Your task to perform on an android device: Search for "usb-a" on newegg, select the first entry, add it to the cart, then select checkout. Image 0: 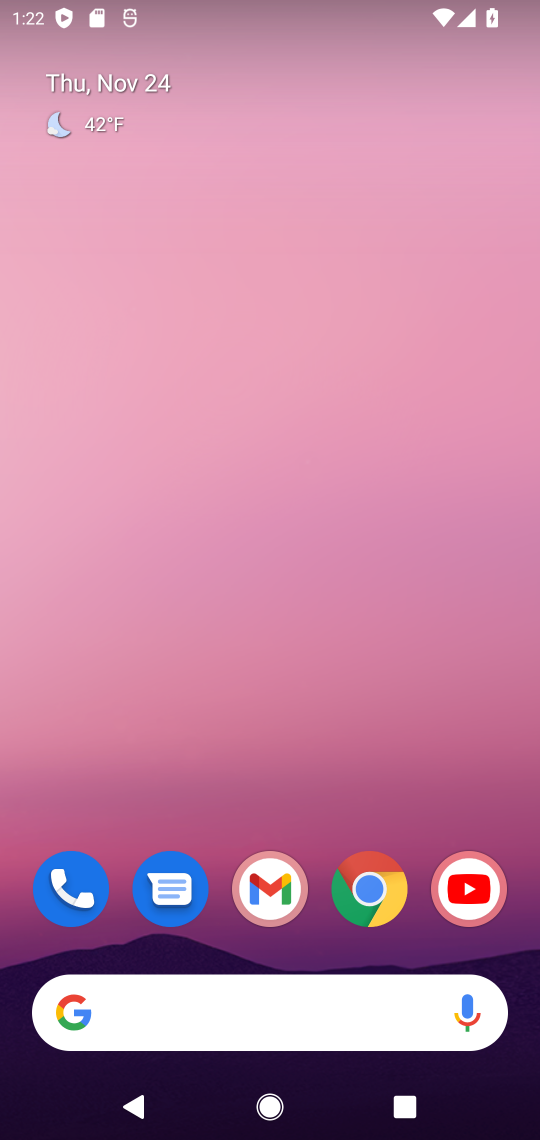
Step 0: click (369, 882)
Your task to perform on an android device: Search for "usb-a" on newegg, select the first entry, add it to the cart, then select checkout. Image 1: 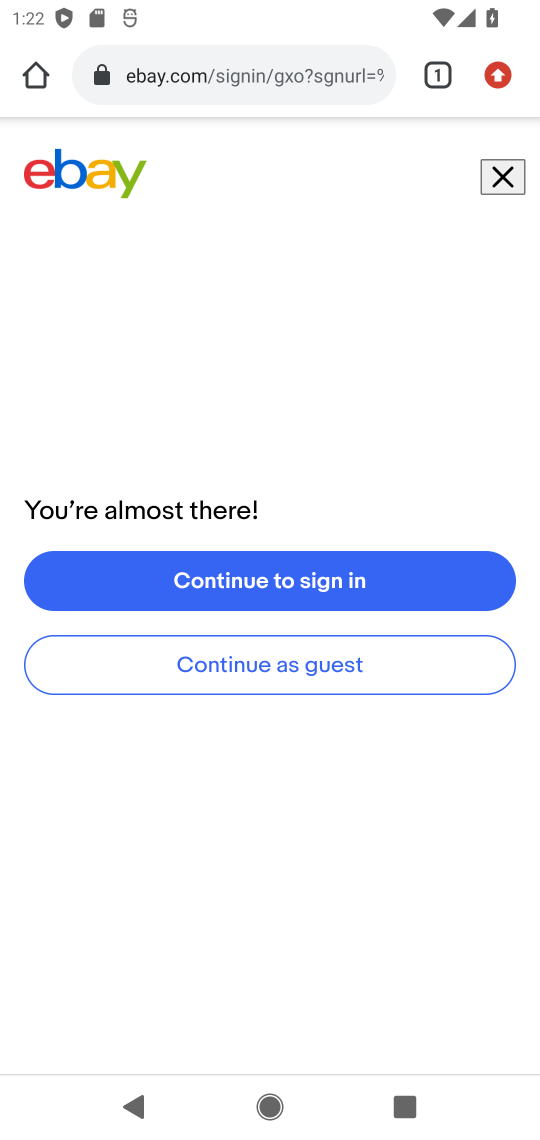
Step 1: click (209, 69)
Your task to perform on an android device: Search for "usb-a" on newegg, select the first entry, add it to the cart, then select checkout. Image 2: 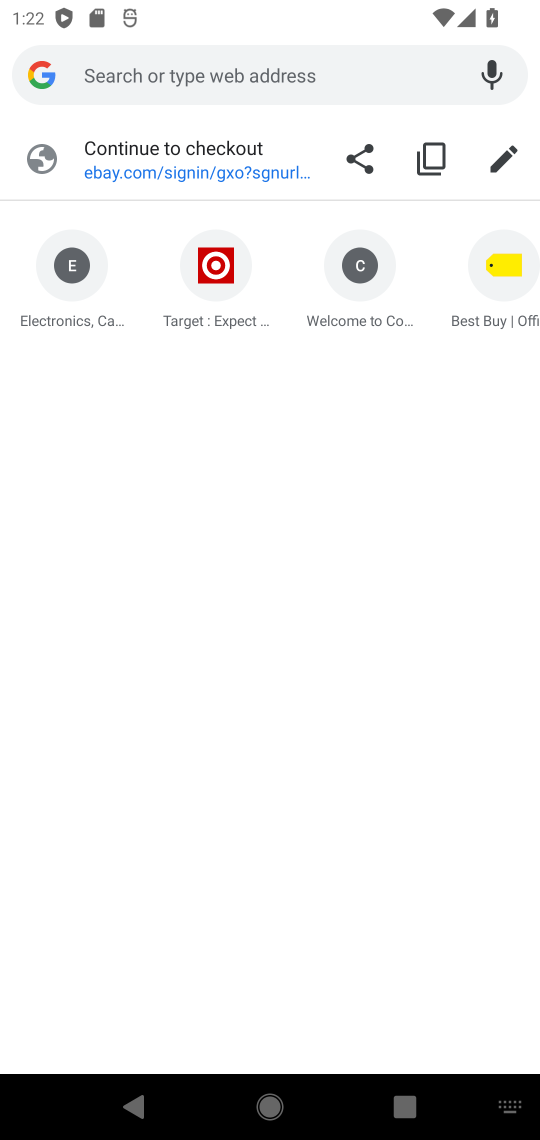
Step 2: type "newegg.com"
Your task to perform on an android device: Search for "usb-a" on newegg, select the first entry, add it to the cart, then select checkout. Image 3: 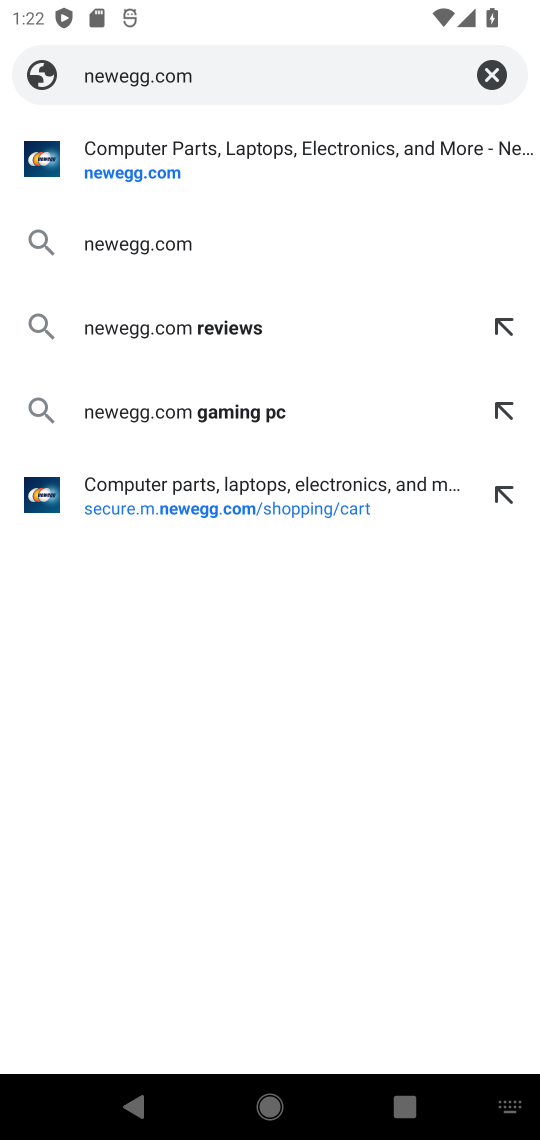
Step 3: click (116, 176)
Your task to perform on an android device: Search for "usb-a" on newegg, select the first entry, add it to the cart, then select checkout. Image 4: 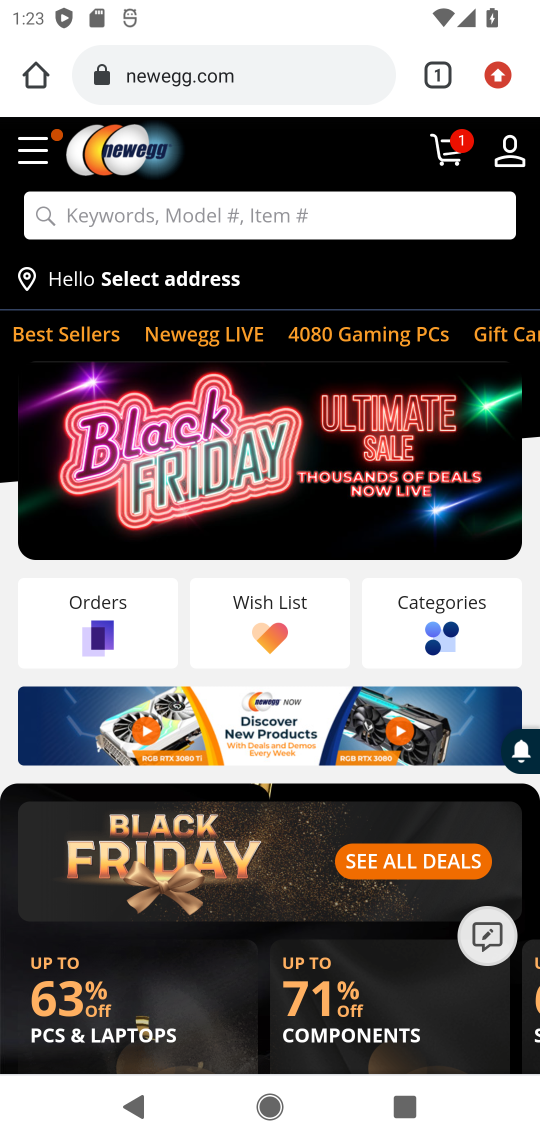
Step 4: click (105, 219)
Your task to perform on an android device: Search for "usb-a" on newegg, select the first entry, add it to the cart, then select checkout. Image 5: 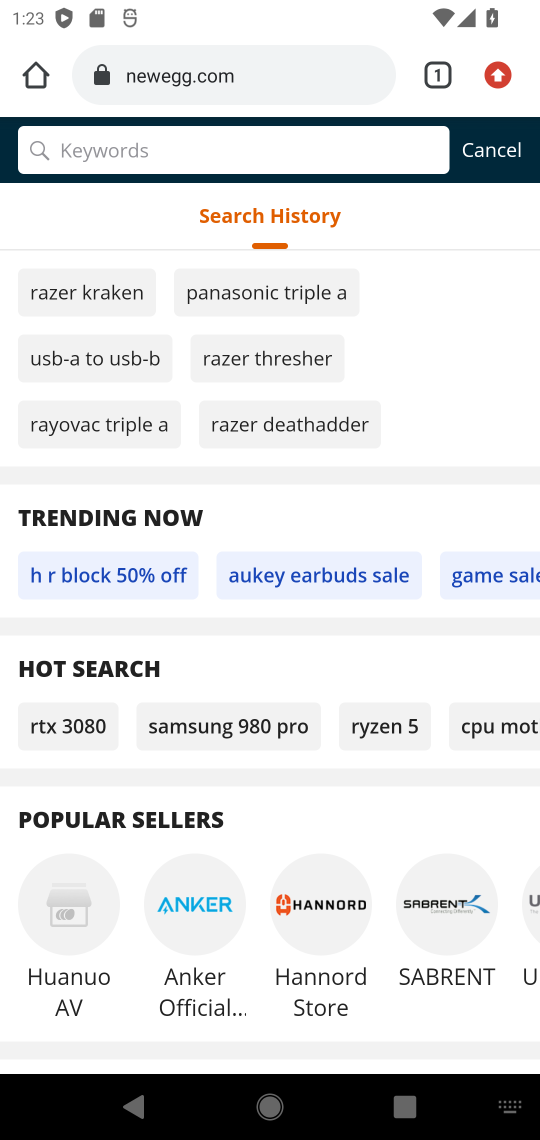
Step 5: type "usb-a"
Your task to perform on an android device: Search for "usb-a" on newegg, select the first entry, add it to the cart, then select checkout. Image 6: 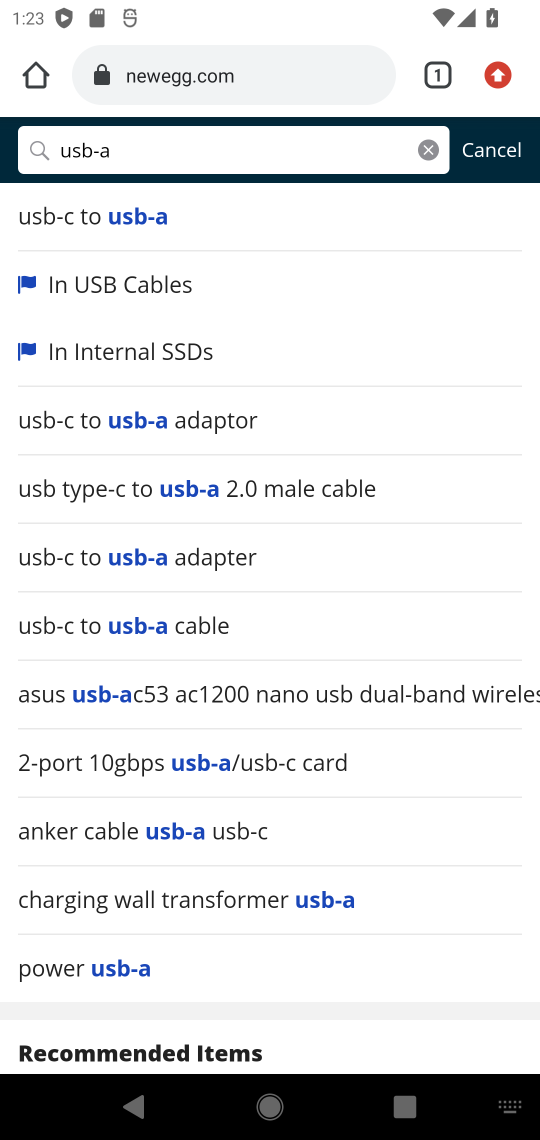
Step 6: click (130, 972)
Your task to perform on an android device: Search for "usb-a" on newegg, select the first entry, add it to the cart, then select checkout. Image 7: 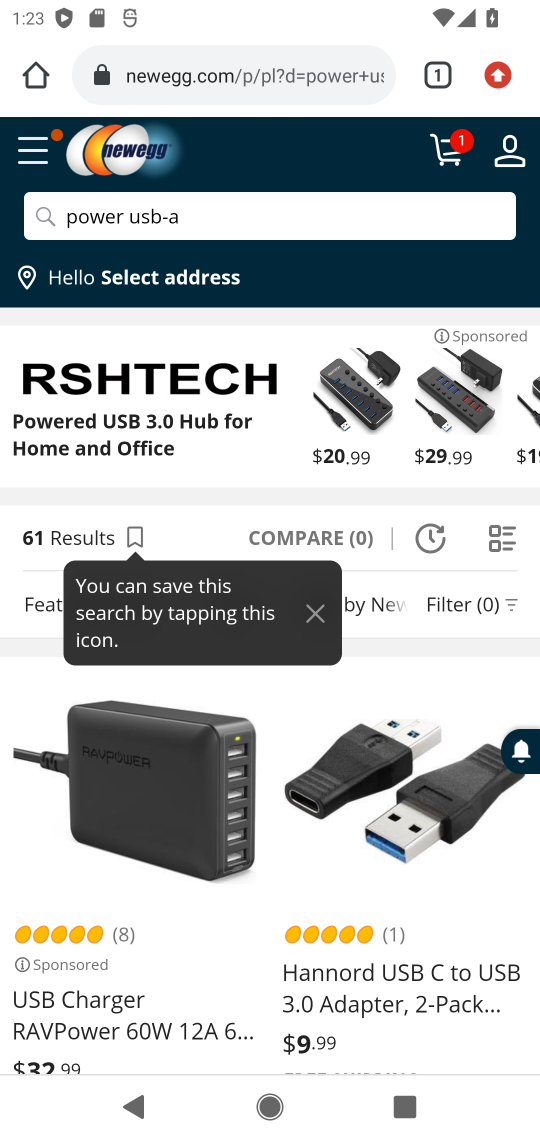
Step 7: drag from (202, 907) to (232, 736)
Your task to perform on an android device: Search for "usb-a" on newegg, select the first entry, add it to the cart, then select checkout. Image 8: 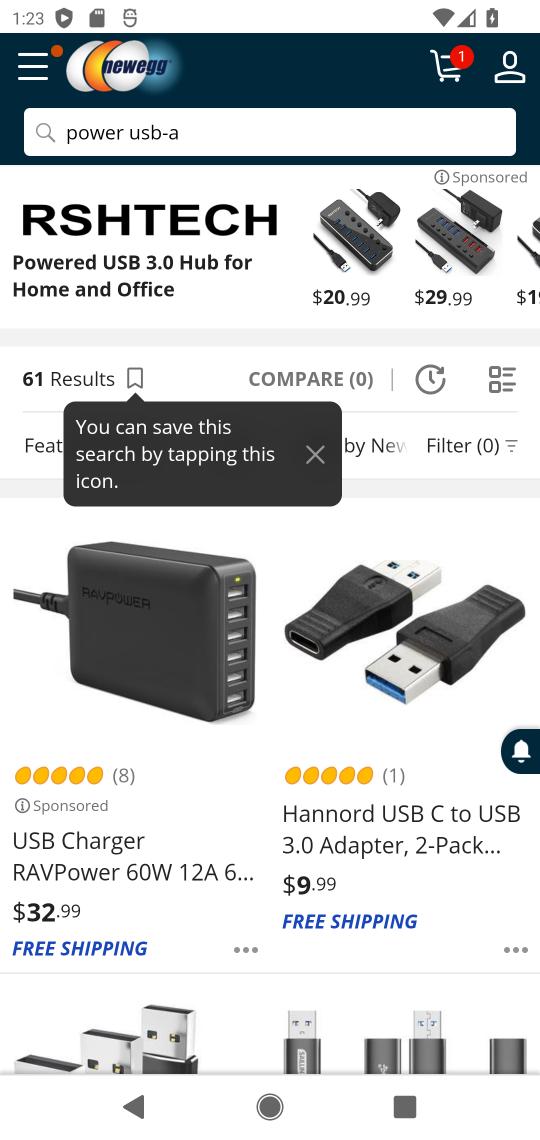
Step 8: drag from (123, 721) to (134, 607)
Your task to perform on an android device: Search for "usb-a" on newegg, select the first entry, add it to the cart, then select checkout. Image 9: 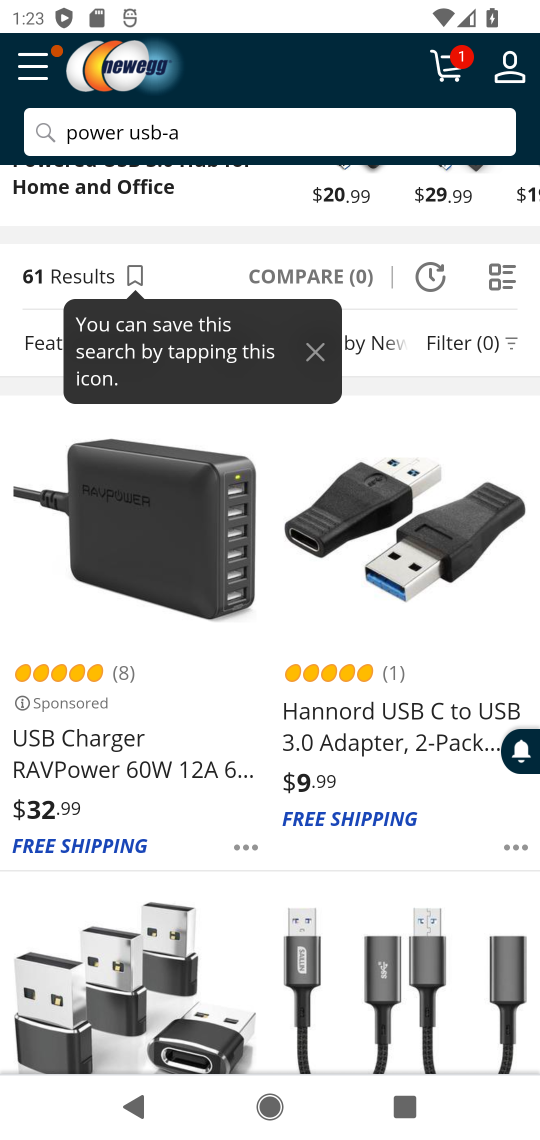
Step 9: click (118, 685)
Your task to perform on an android device: Search for "usb-a" on newegg, select the first entry, add it to the cart, then select checkout. Image 10: 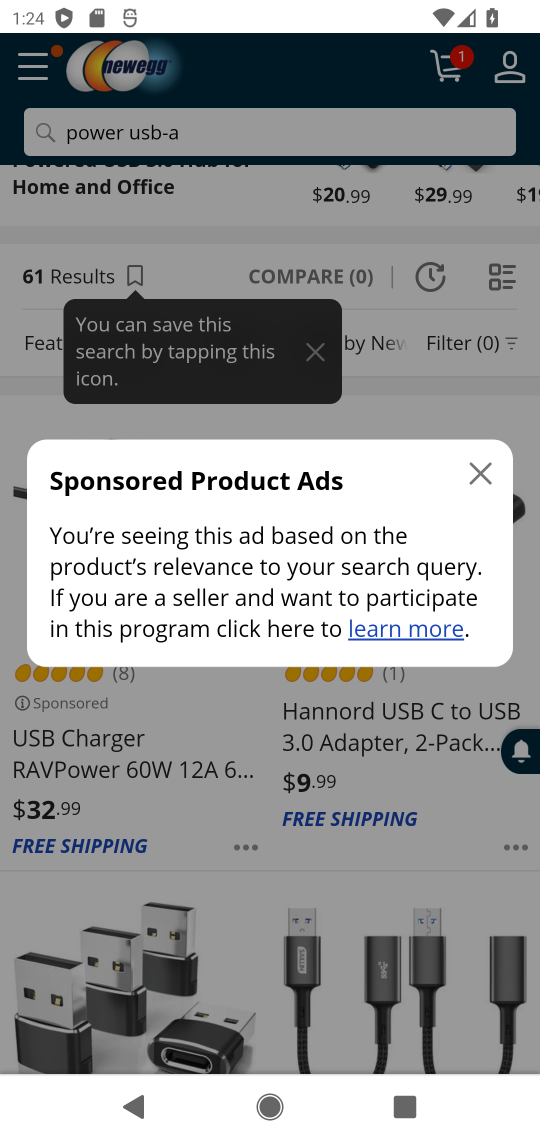
Step 10: click (488, 468)
Your task to perform on an android device: Search for "usb-a" on newegg, select the first entry, add it to the cart, then select checkout. Image 11: 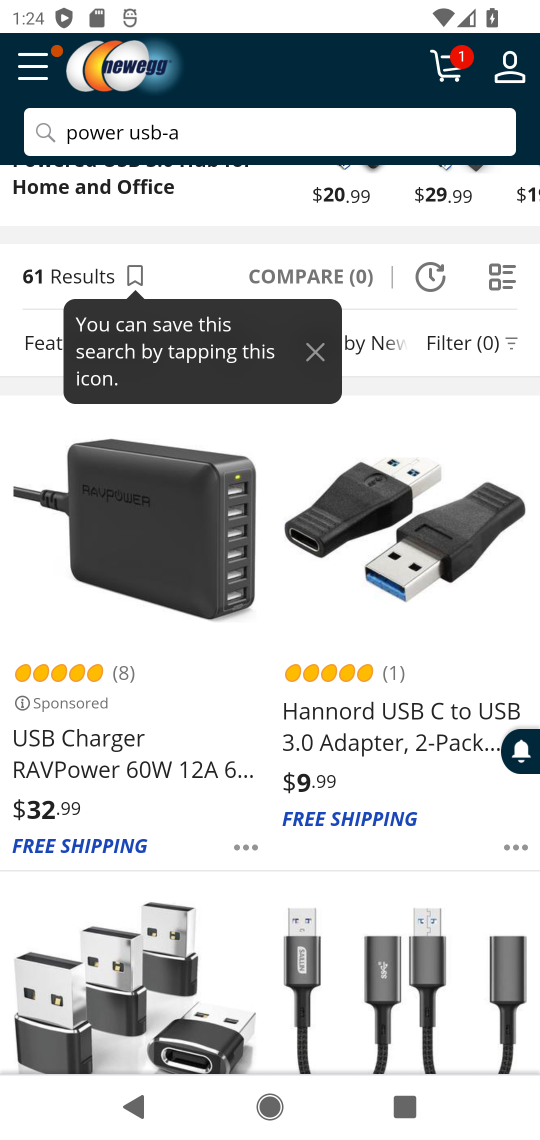
Step 11: click (103, 584)
Your task to perform on an android device: Search for "usb-a" on newegg, select the first entry, add it to the cart, then select checkout. Image 12: 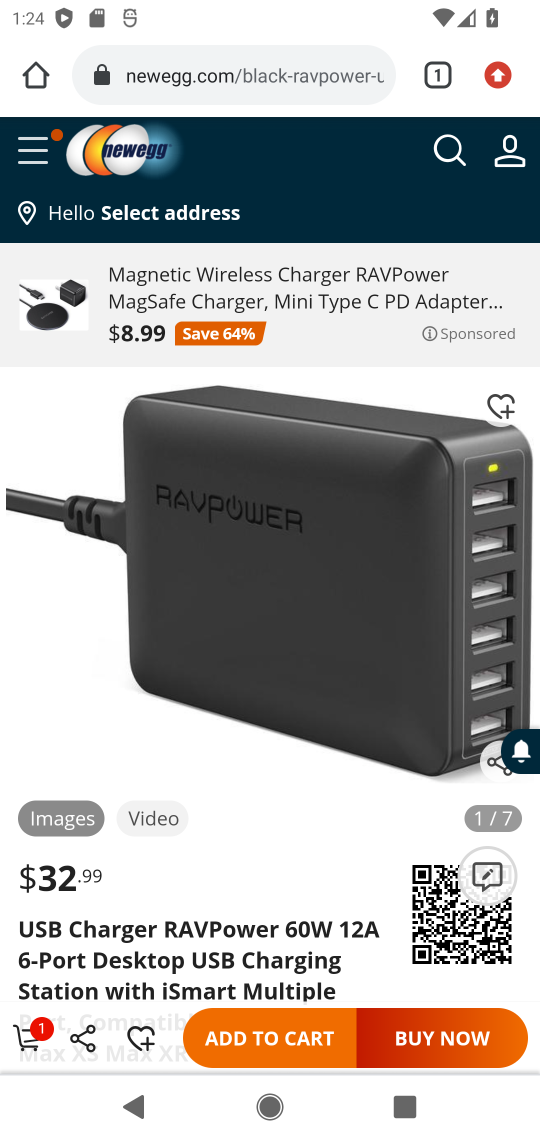
Step 12: task complete